Your task to perform on an android device: Go to calendar. Show me events next week Image 0: 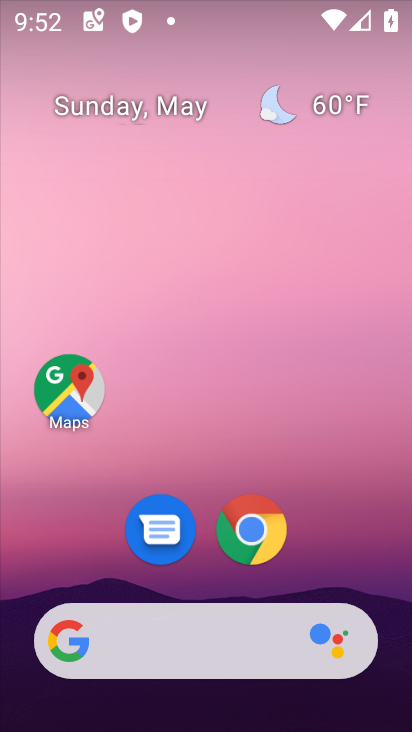
Step 0: drag from (394, 552) to (387, 108)
Your task to perform on an android device: Go to calendar. Show me events next week Image 1: 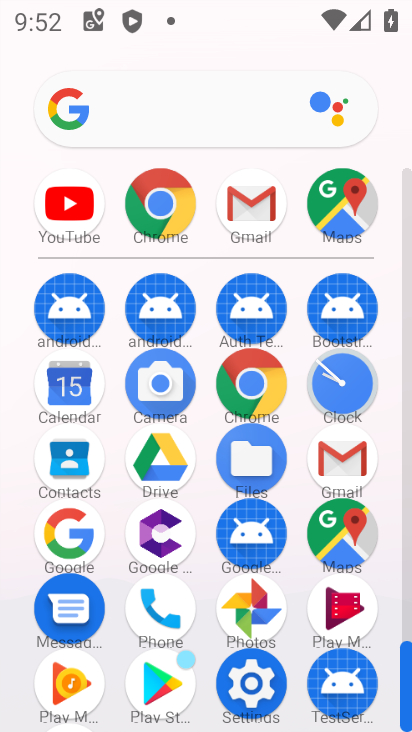
Step 1: click (72, 401)
Your task to perform on an android device: Go to calendar. Show me events next week Image 2: 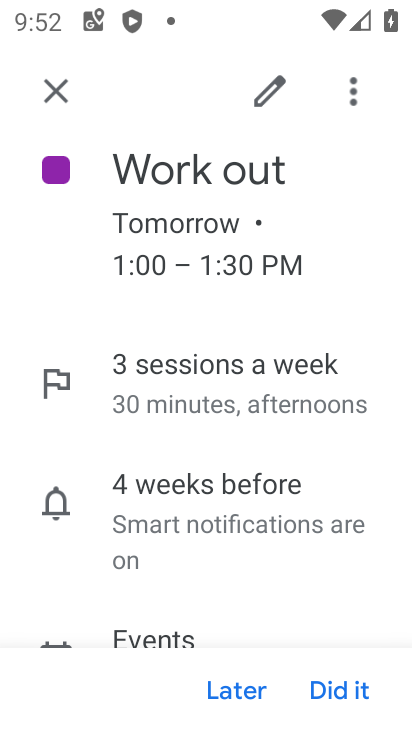
Step 2: click (52, 98)
Your task to perform on an android device: Go to calendar. Show me events next week Image 3: 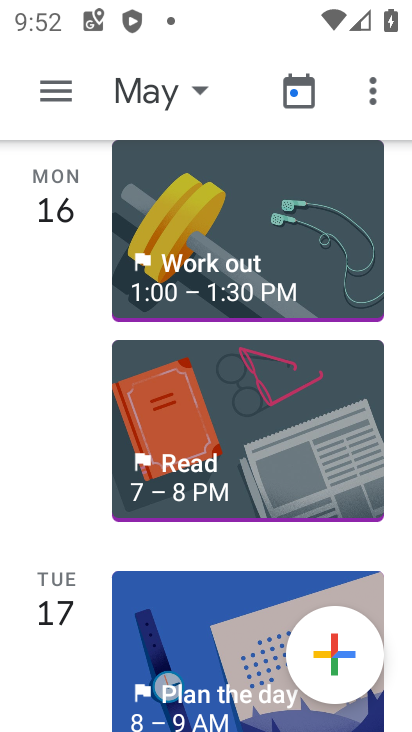
Step 3: click (194, 90)
Your task to perform on an android device: Go to calendar. Show me events next week Image 4: 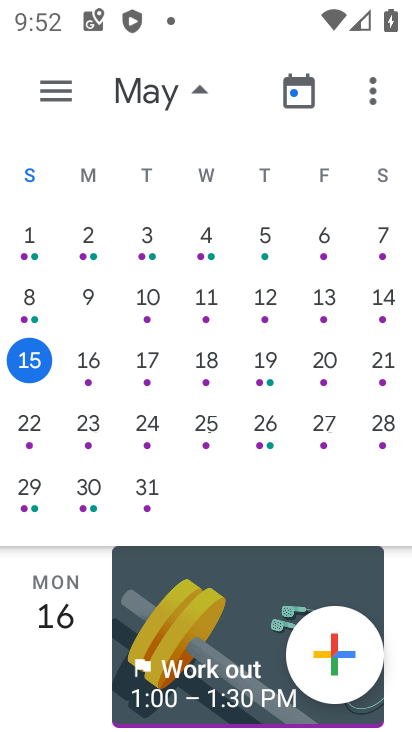
Step 4: click (93, 426)
Your task to perform on an android device: Go to calendar. Show me events next week Image 5: 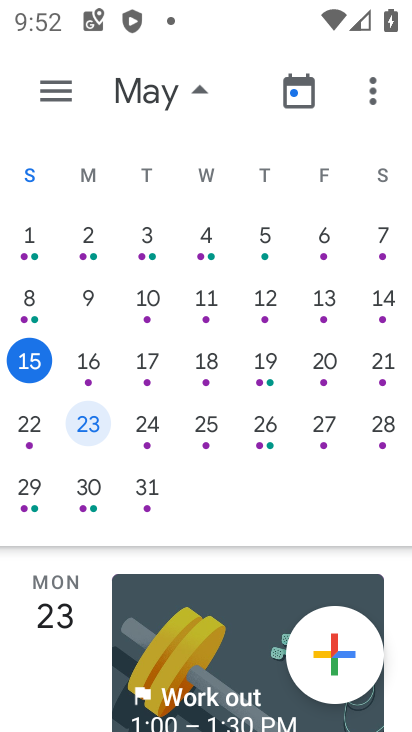
Step 5: task complete